Your task to perform on an android device: toggle data saver in the chrome app Image 0: 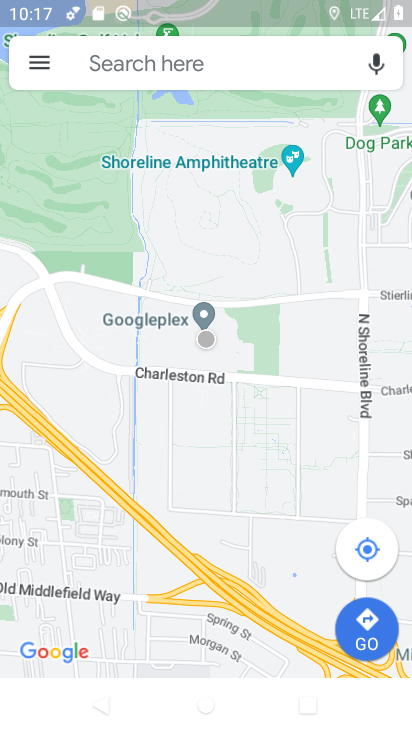
Step 0: press home button
Your task to perform on an android device: toggle data saver in the chrome app Image 1: 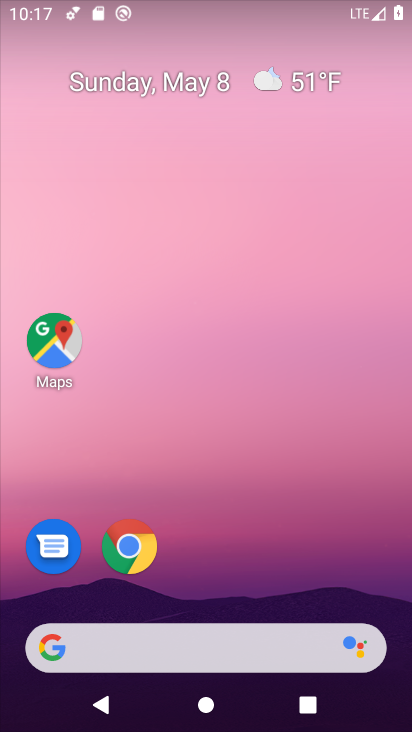
Step 1: click (133, 548)
Your task to perform on an android device: toggle data saver in the chrome app Image 2: 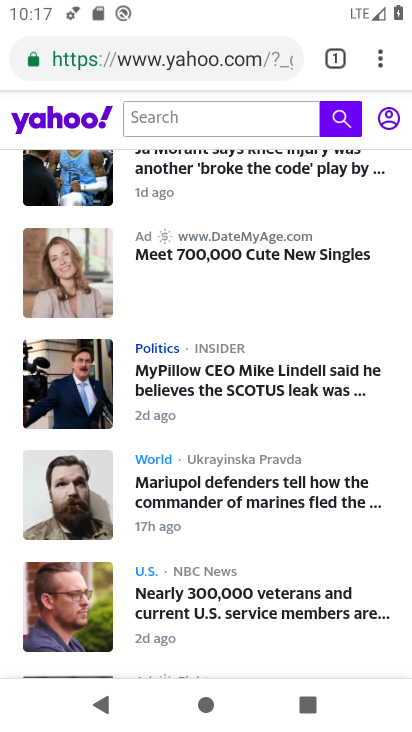
Step 2: click (377, 58)
Your task to perform on an android device: toggle data saver in the chrome app Image 3: 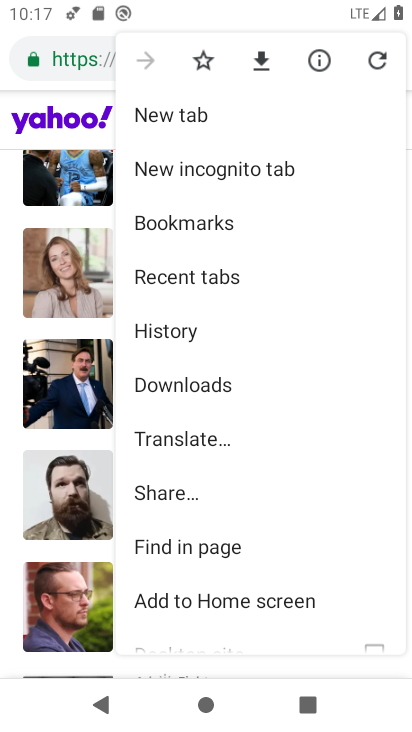
Step 3: drag from (300, 601) to (318, 188)
Your task to perform on an android device: toggle data saver in the chrome app Image 4: 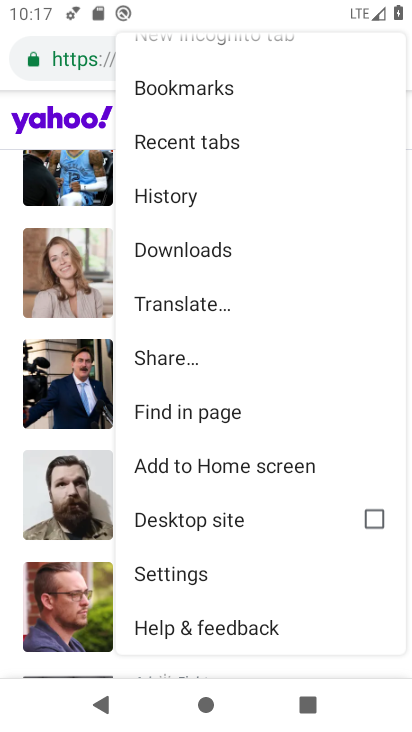
Step 4: click (172, 568)
Your task to perform on an android device: toggle data saver in the chrome app Image 5: 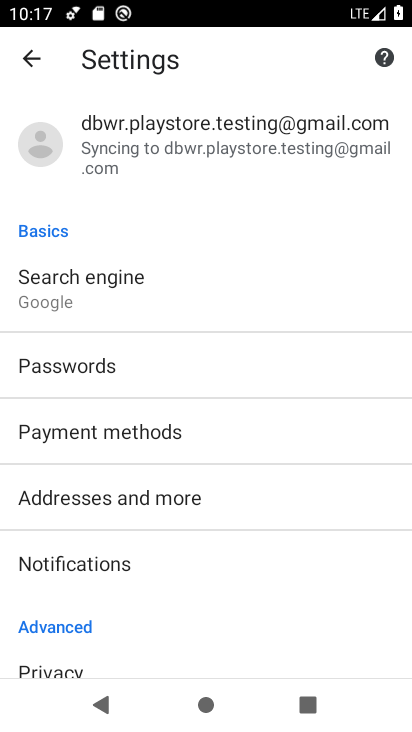
Step 5: drag from (225, 633) to (256, 135)
Your task to perform on an android device: toggle data saver in the chrome app Image 6: 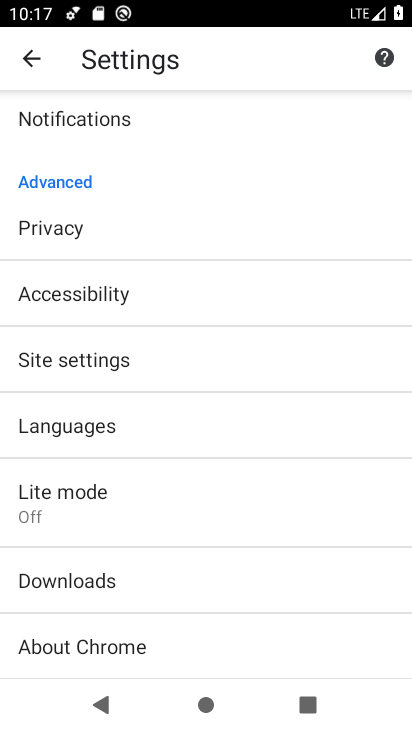
Step 6: click (39, 504)
Your task to perform on an android device: toggle data saver in the chrome app Image 7: 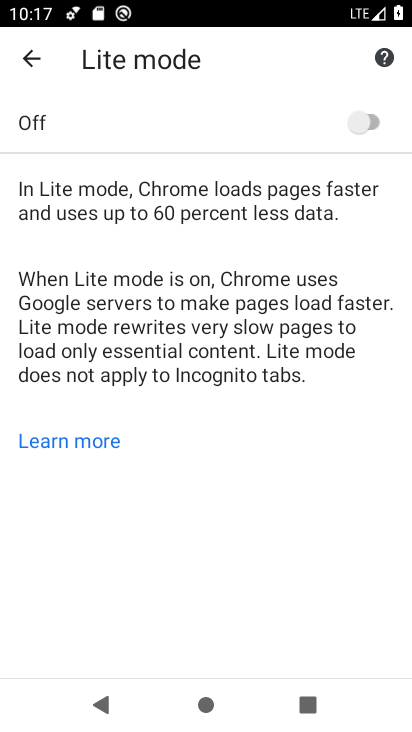
Step 7: click (369, 117)
Your task to perform on an android device: toggle data saver in the chrome app Image 8: 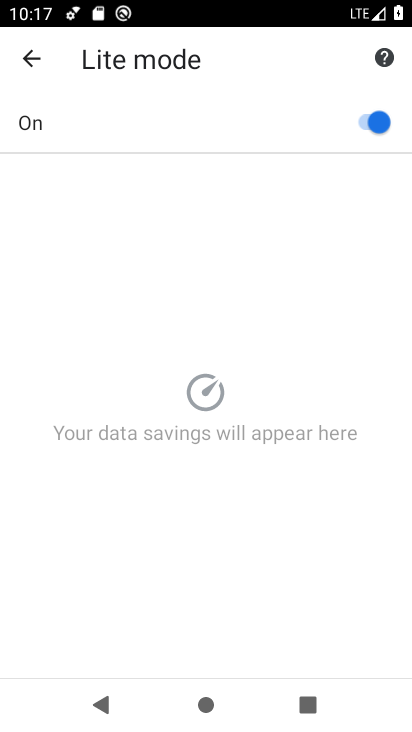
Step 8: task complete